Your task to perform on an android device: Show me the alarms in the clock app Image 0: 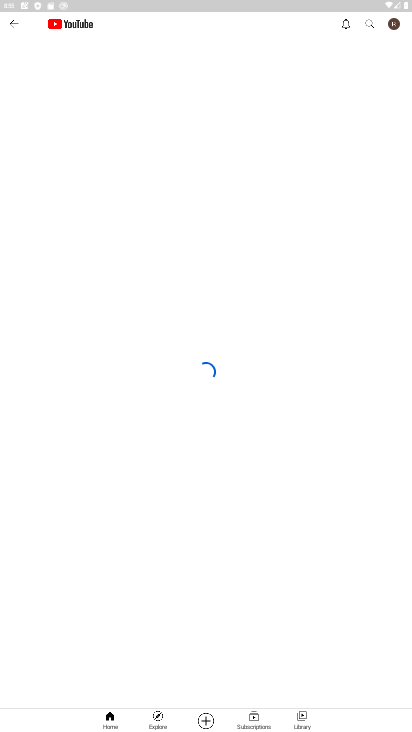
Step 0: press home button
Your task to perform on an android device: Show me the alarms in the clock app Image 1: 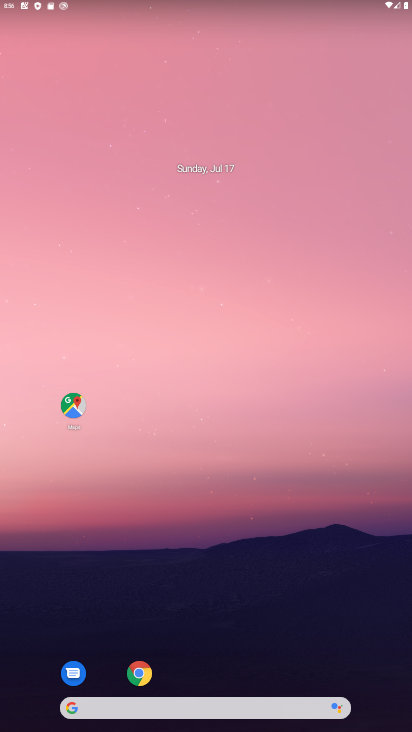
Step 1: drag from (277, 663) to (177, 175)
Your task to perform on an android device: Show me the alarms in the clock app Image 2: 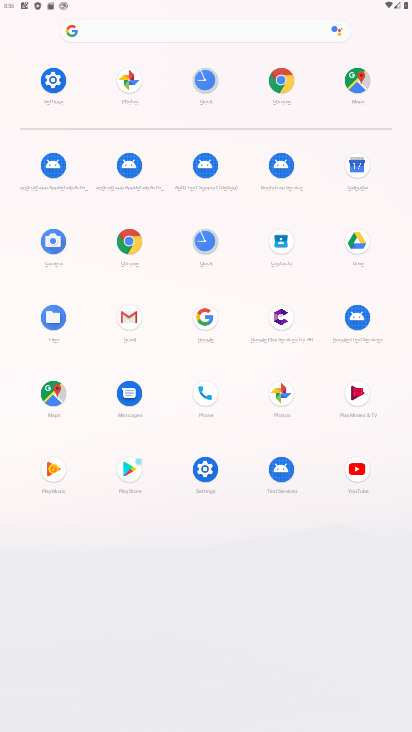
Step 2: click (206, 233)
Your task to perform on an android device: Show me the alarms in the clock app Image 3: 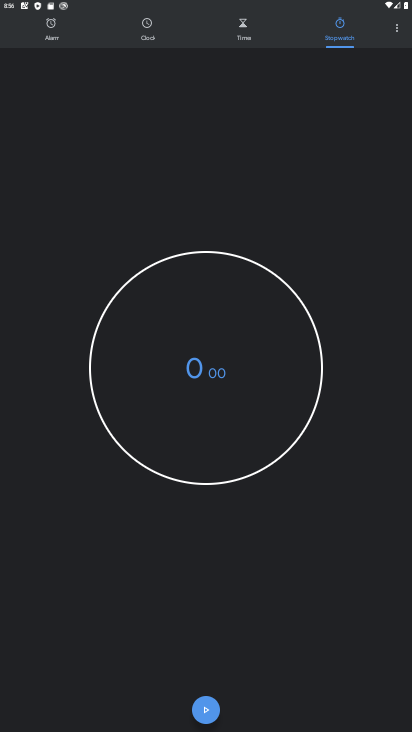
Step 3: click (54, 38)
Your task to perform on an android device: Show me the alarms in the clock app Image 4: 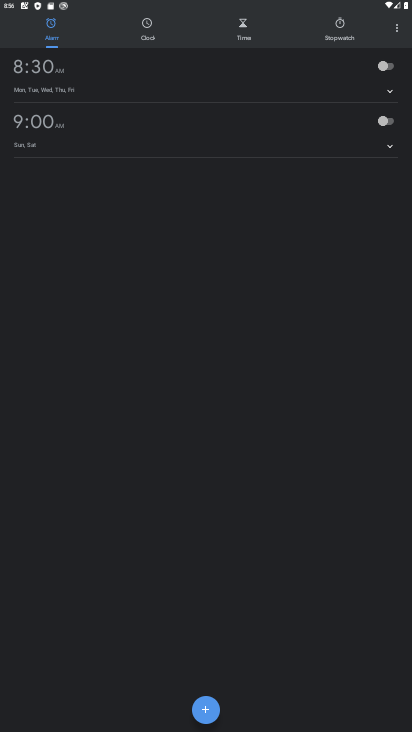
Step 4: task complete